Your task to perform on an android device: Go to Reddit.com Image 0: 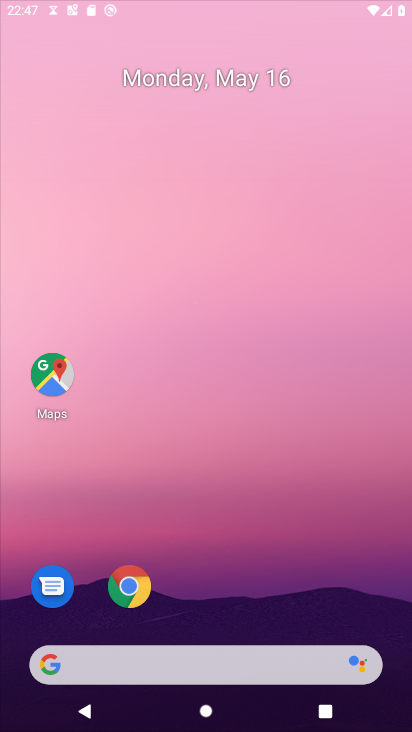
Step 0: press home button
Your task to perform on an android device: Go to Reddit.com Image 1: 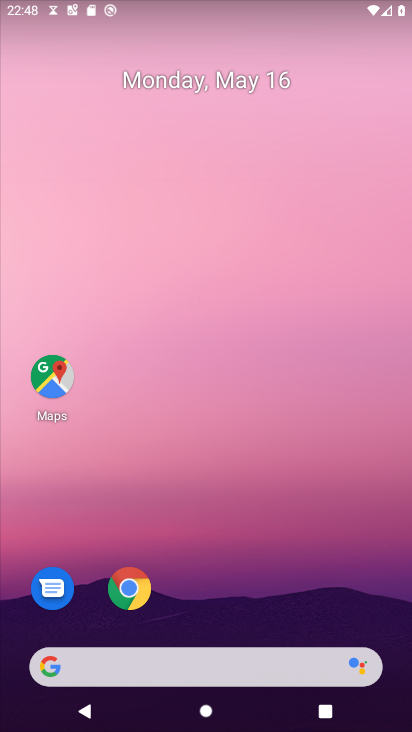
Step 1: click (128, 581)
Your task to perform on an android device: Go to Reddit.com Image 2: 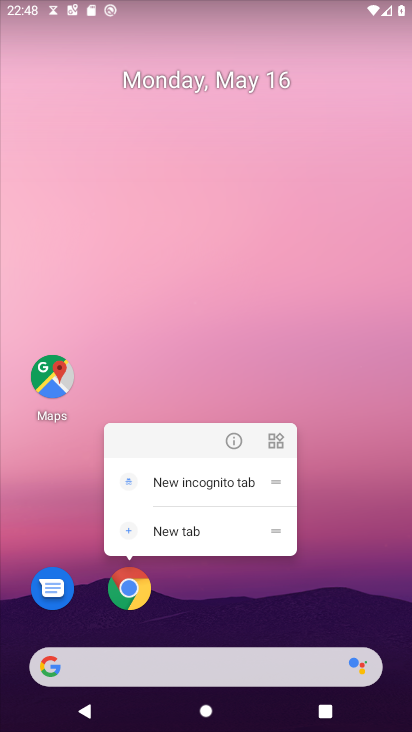
Step 2: click (125, 582)
Your task to perform on an android device: Go to Reddit.com Image 3: 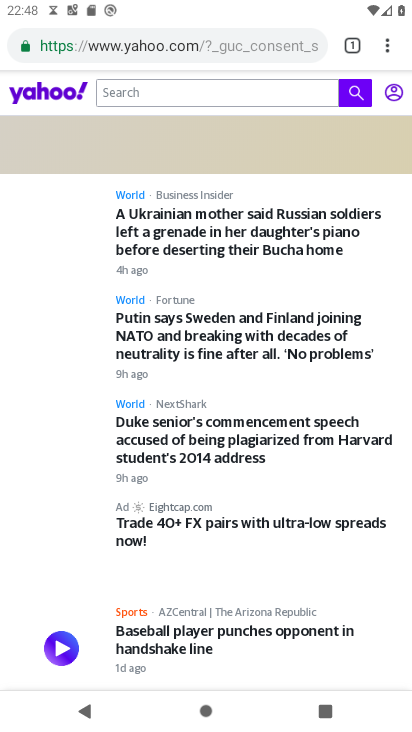
Step 3: click (348, 41)
Your task to perform on an android device: Go to Reddit.com Image 4: 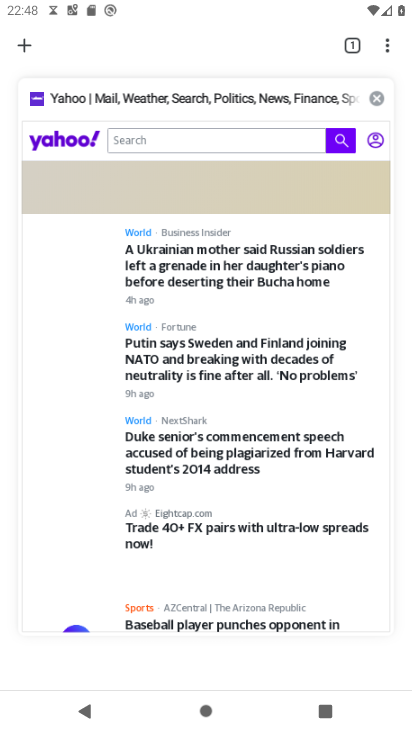
Step 4: click (372, 93)
Your task to perform on an android device: Go to Reddit.com Image 5: 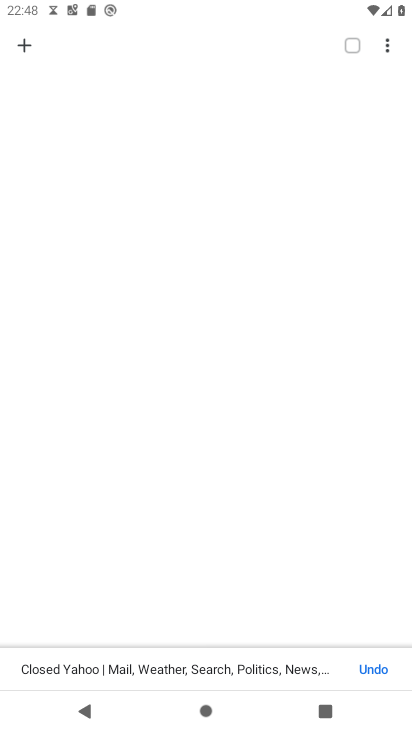
Step 5: click (25, 42)
Your task to perform on an android device: Go to Reddit.com Image 6: 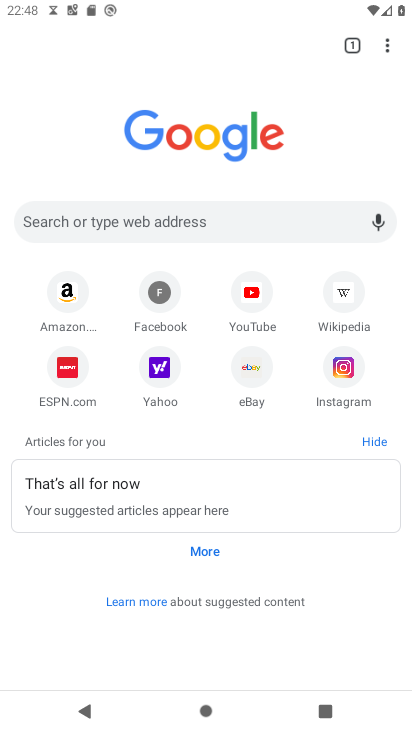
Step 6: click (134, 215)
Your task to perform on an android device: Go to Reddit.com Image 7: 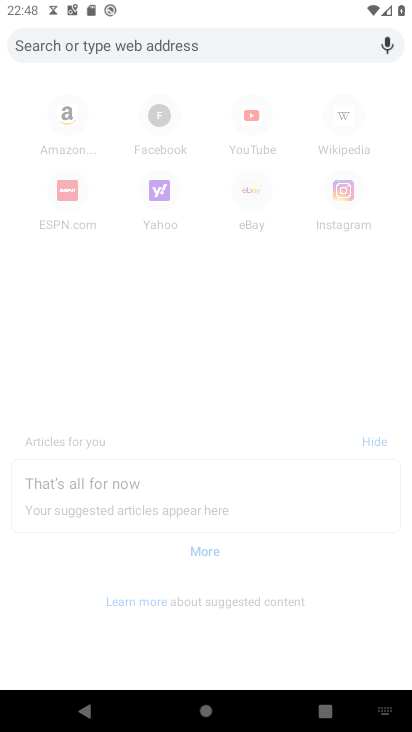
Step 7: type "reddit"
Your task to perform on an android device: Go to Reddit.com Image 8: 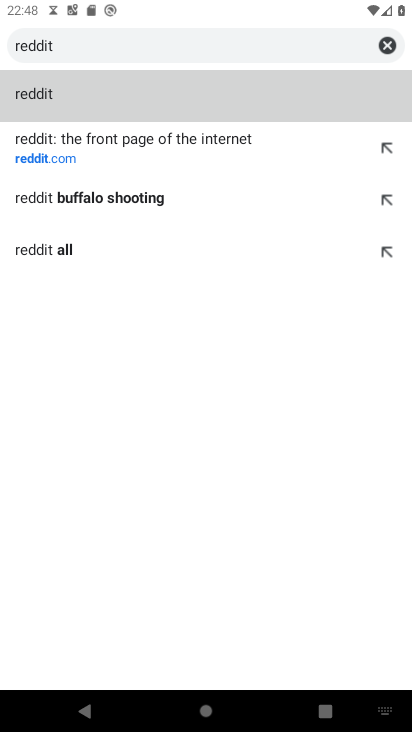
Step 8: click (88, 151)
Your task to perform on an android device: Go to Reddit.com Image 9: 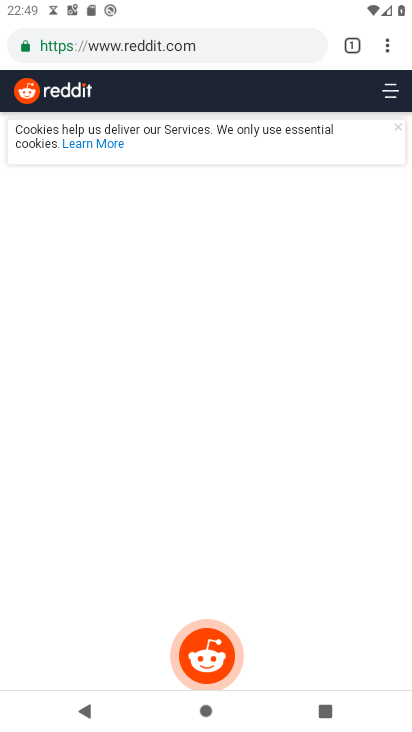
Step 9: task complete